Your task to perform on an android device: toggle wifi Image 0: 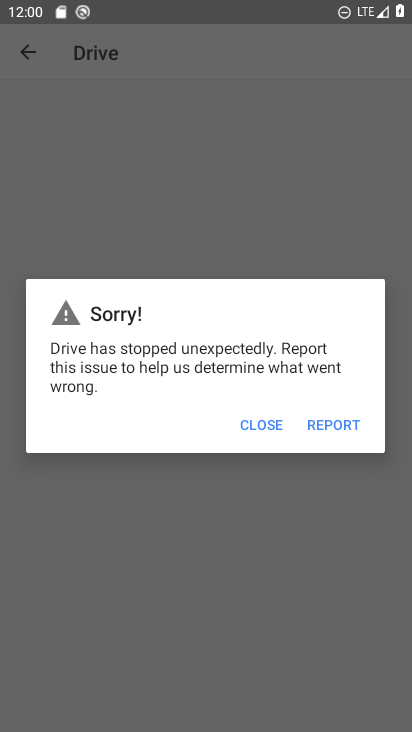
Step 0: press home button
Your task to perform on an android device: toggle wifi Image 1: 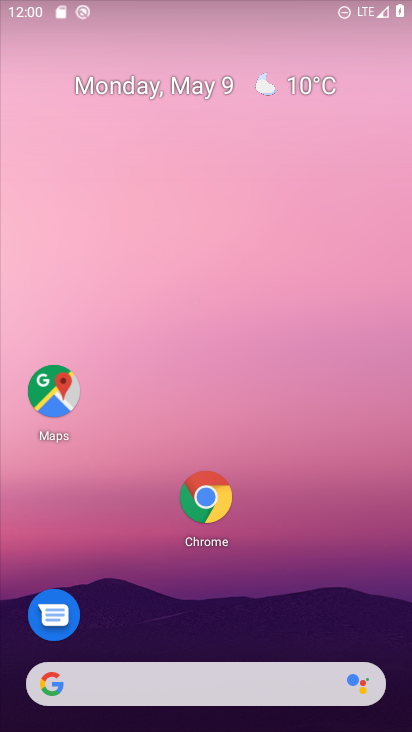
Step 1: drag from (316, 630) to (340, 133)
Your task to perform on an android device: toggle wifi Image 2: 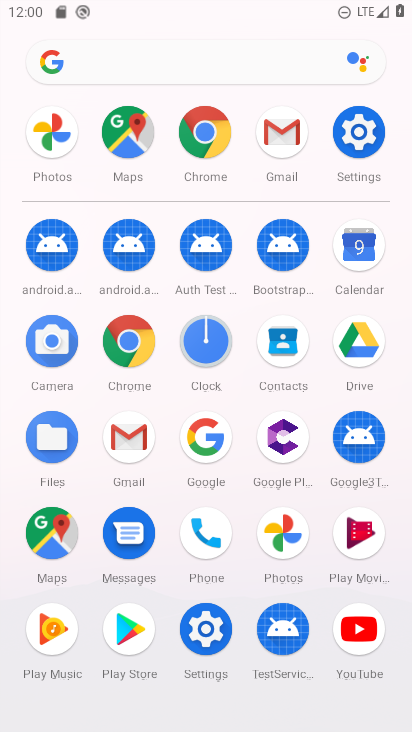
Step 2: click (354, 149)
Your task to perform on an android device: toggle wifi Image 3: 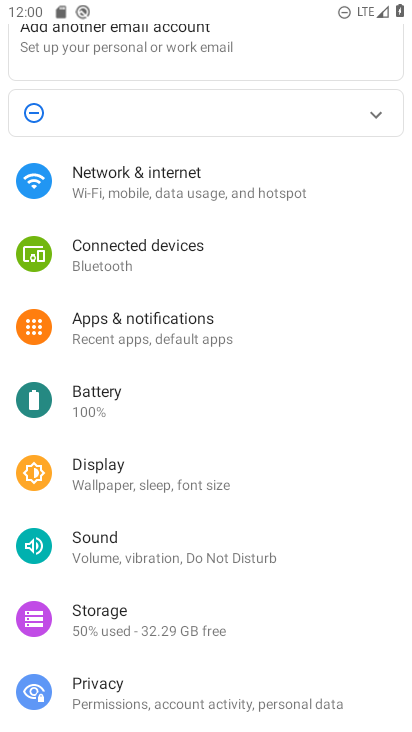
Step 3: click (207, 196)
Your task to perform on an android device: toggle wifi Image 4: 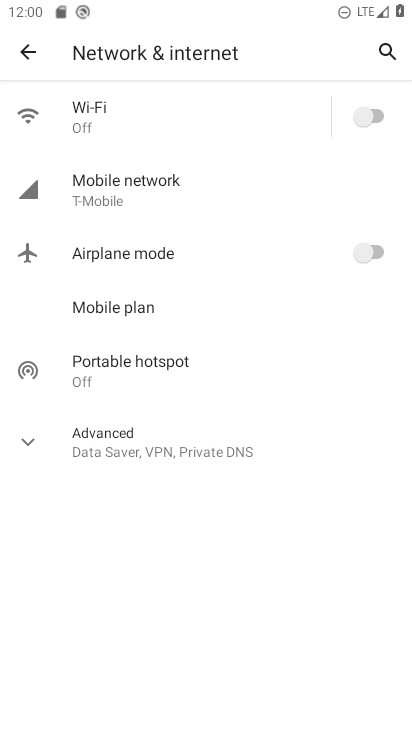
Step 4: click (362, 112)
Your task to perform on an android device: toggle wifi Image 5: 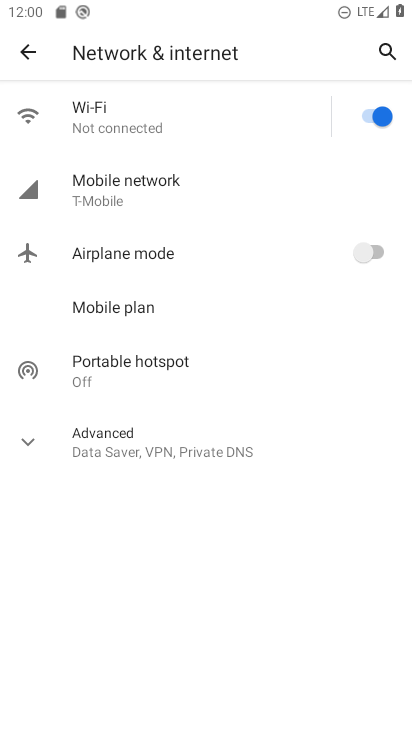
Step 5: task complete